Your task to perform on an android device: Search for "bose soundsport free" on target.com, select the first entry, and add it to the cart. Image 0: 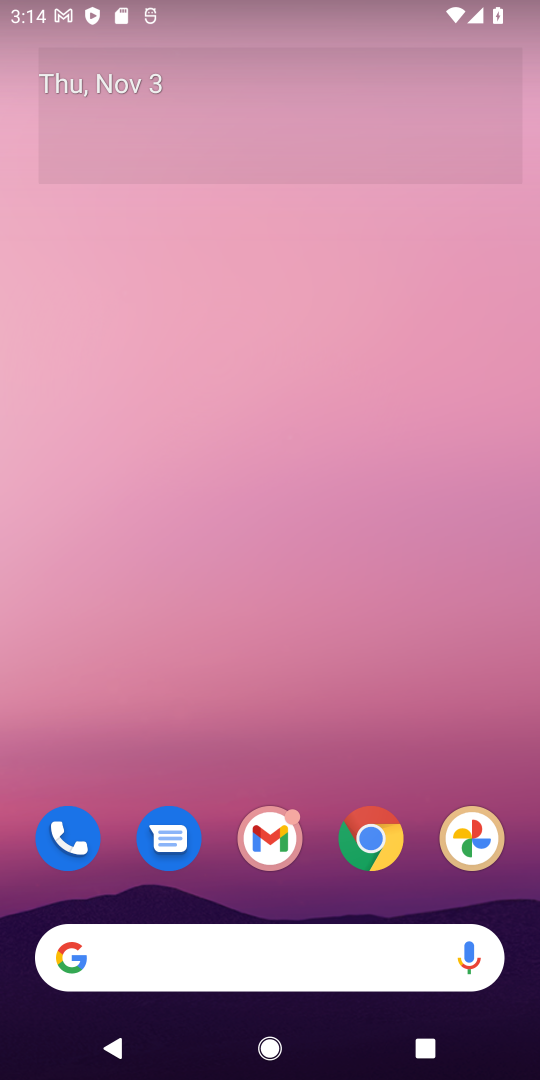
Step 0: drag from (194, 902) to (147, 246)
Your task to perform on an android device: Search for "bose soundsport free" on target.com, select the first entry, and add it to the cart. Image 1: 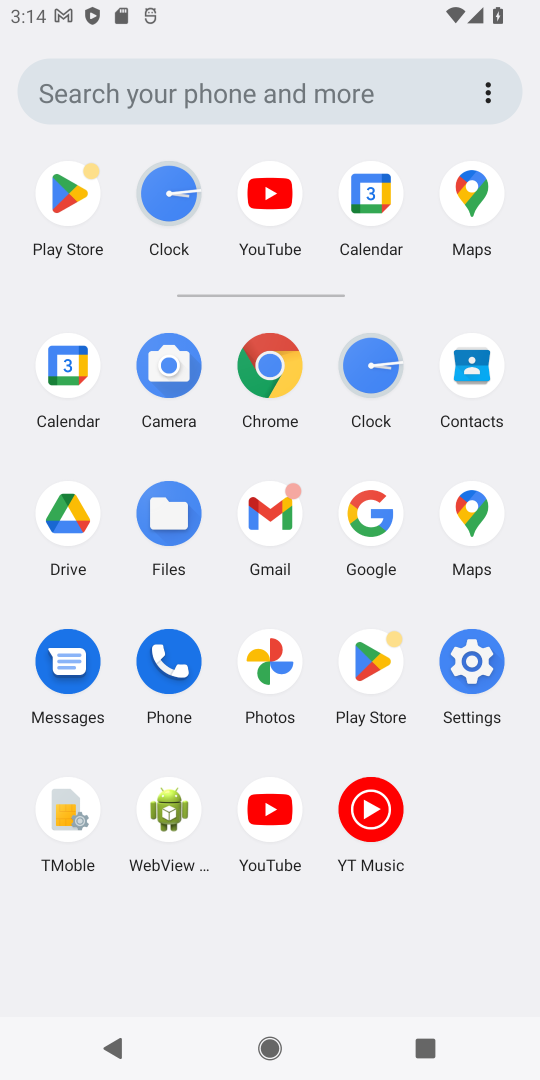
Step 1: click (270, 371)
Your task to perform on an android device: Search for "bose soundsport free" on target.com, select the first entry, and add it to the cart. Image 2: 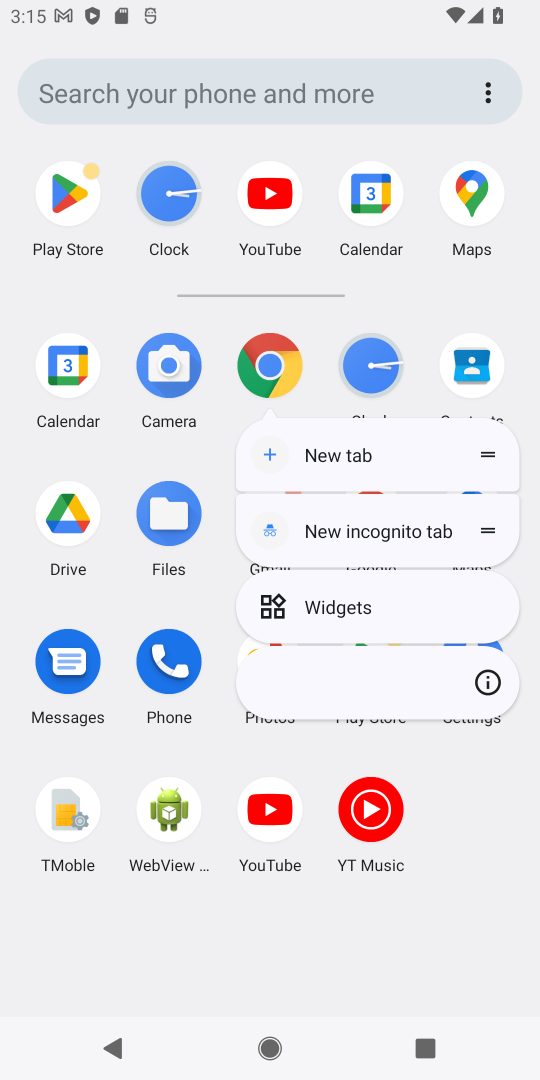
Step 2: click (264, 370)
Your task to perform on an android device: Search for "bose soundsport free" on target.com, select the first entry, and add it to the cart. Image 3: 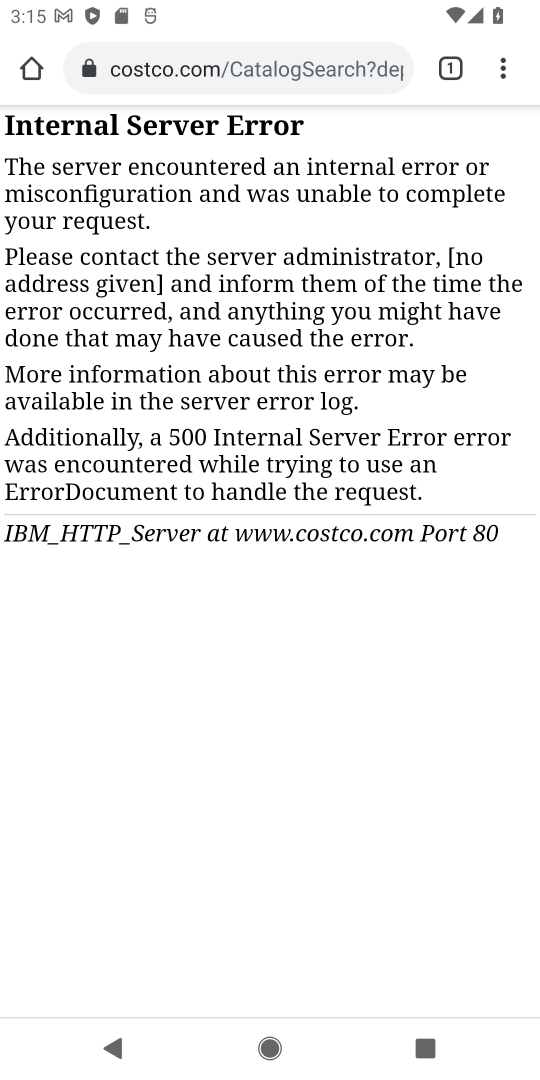
Step 3: click (337, 57)
Your task to perform on an android device: Search for "bose soundsport free" on target.com, select the first entry, and add it to the cart. Image 4: 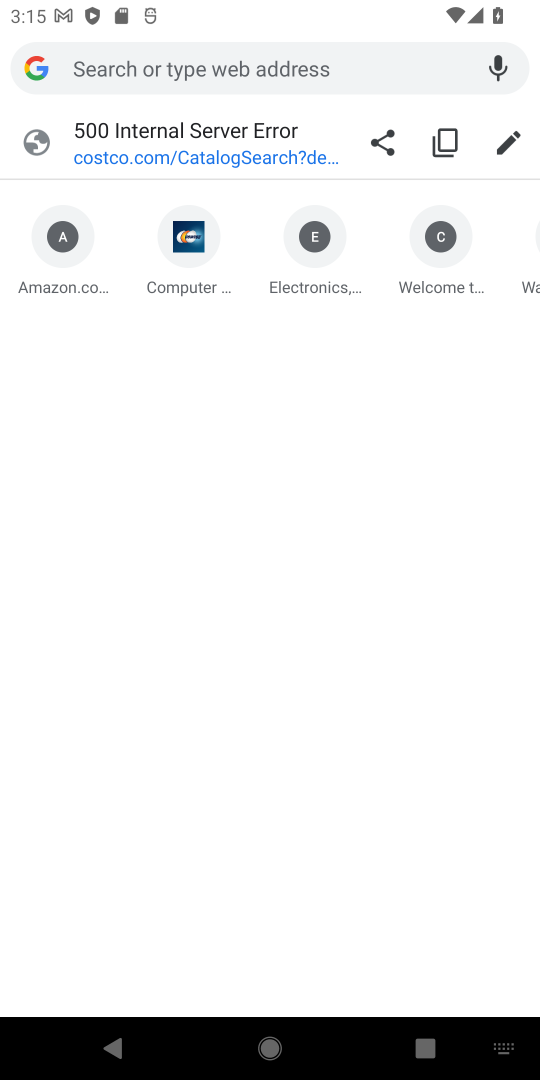
Step 4: type "target.com"
Your task to perform on an android device: Search for "bose soundsport free" on target.com, select the first entry, and add it to the cart. Image 5: 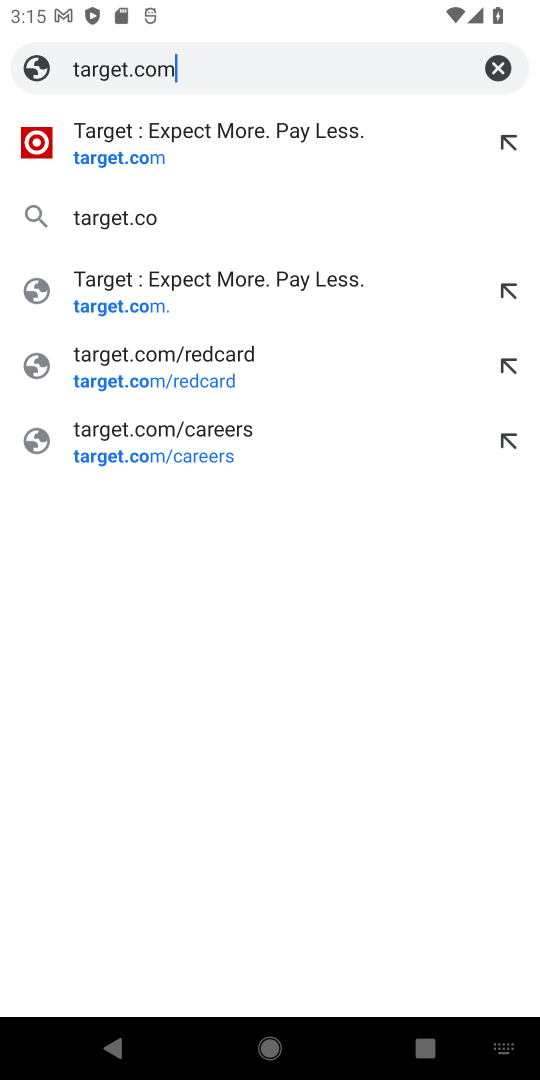
Step 5: press enter
Your task to perform on an android device: Search for "bose soundsport free" on target.com, select the first entry, and add it to the cart. Image 6: 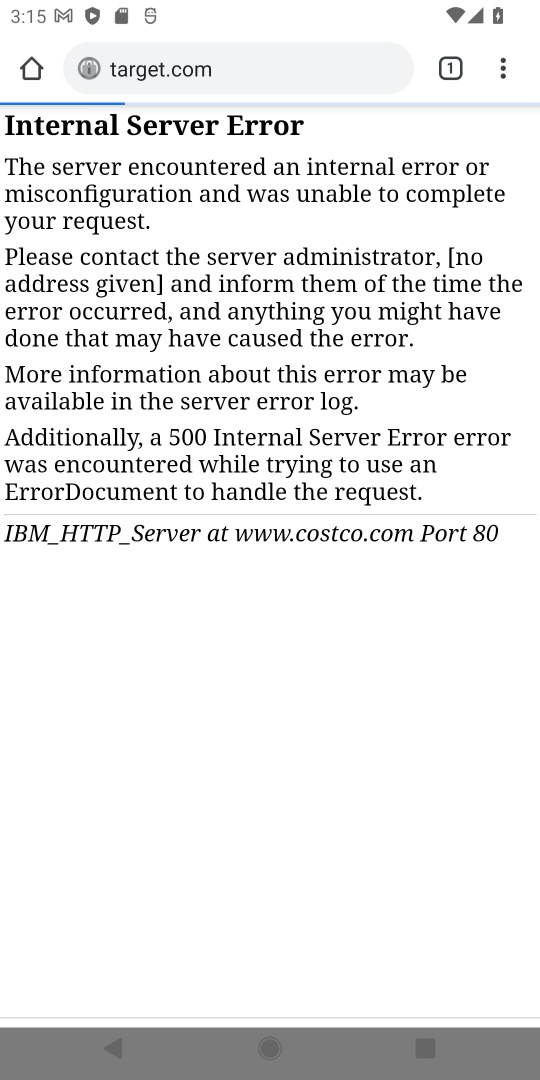
Step 6: press enter
Your task to perform on an android device: Search for "bose soundsport free" on target.com, select the first entry, and add it to the cart. Image 7: 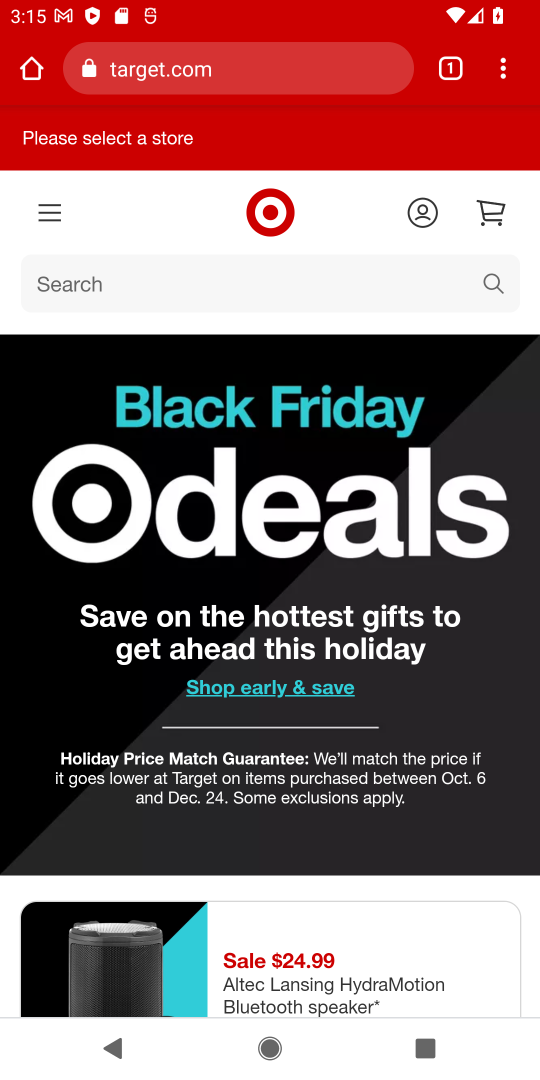
Step 7: press enter
Your task to perform on an android device: Search for "bose soundsport free" on target.com, select the first entry, and add it to the cart. Image 8: 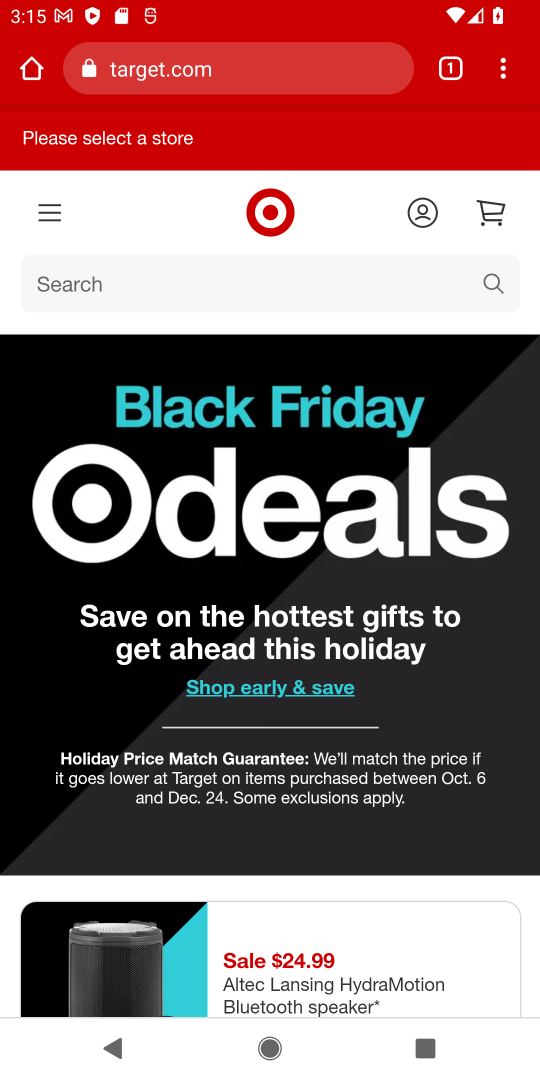
Step 8: click (200, 296)
Your task to perform on an android device: Search for "bose soundsport free" on target.com, select the first entry, and add it to the cart. Image 9: 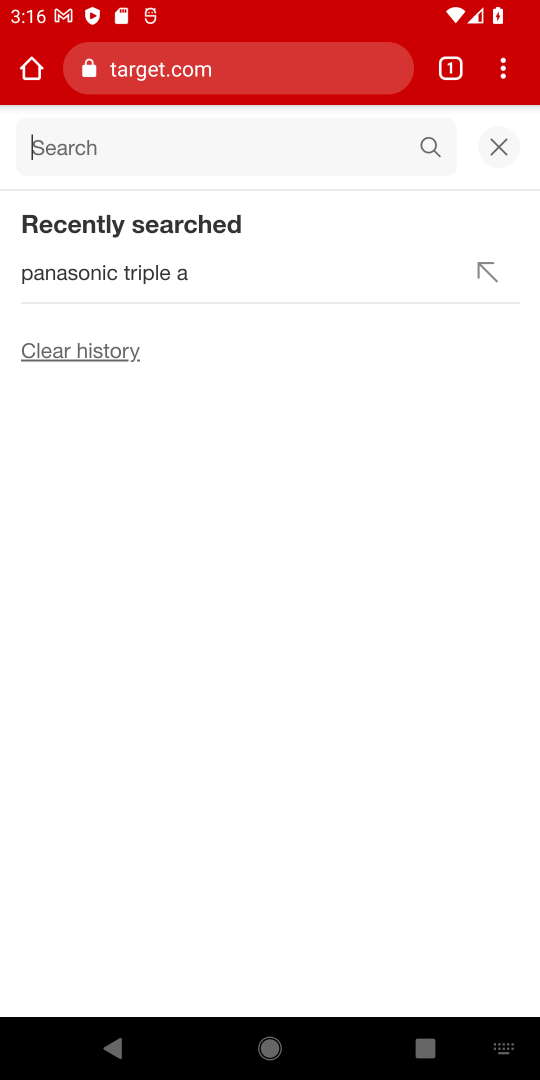
Step 9: type "bose soundsport free"
Your task to perform on an android device: Search for "bose soundsport free" on target.com, select the first entry, and add it to the cart. Image 10: 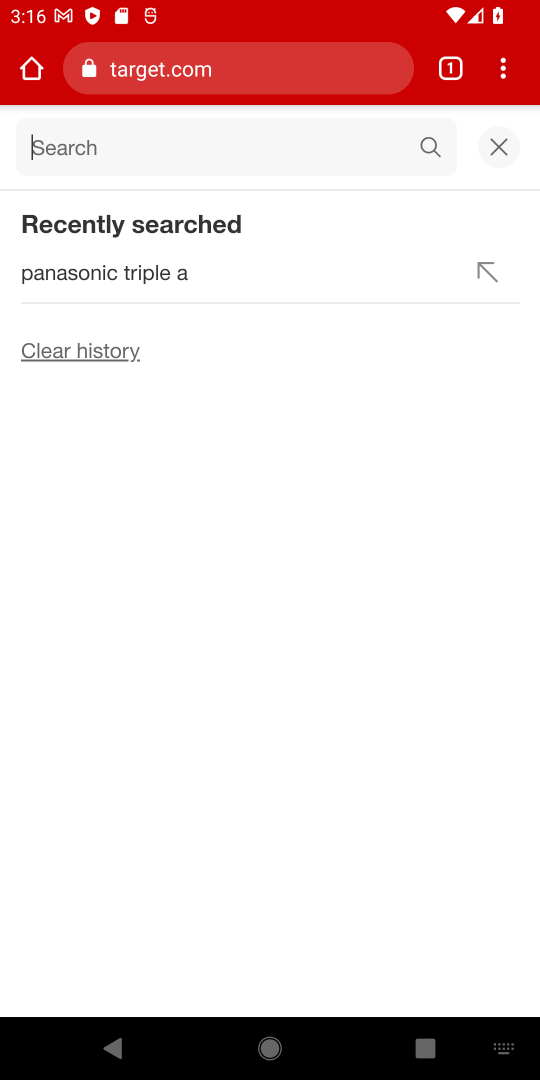
Step 10: press enter
Your task to perform on an android device: Search for "bose soundsport free" on target.com, select the first entry, and add it to the cart. Image 11: 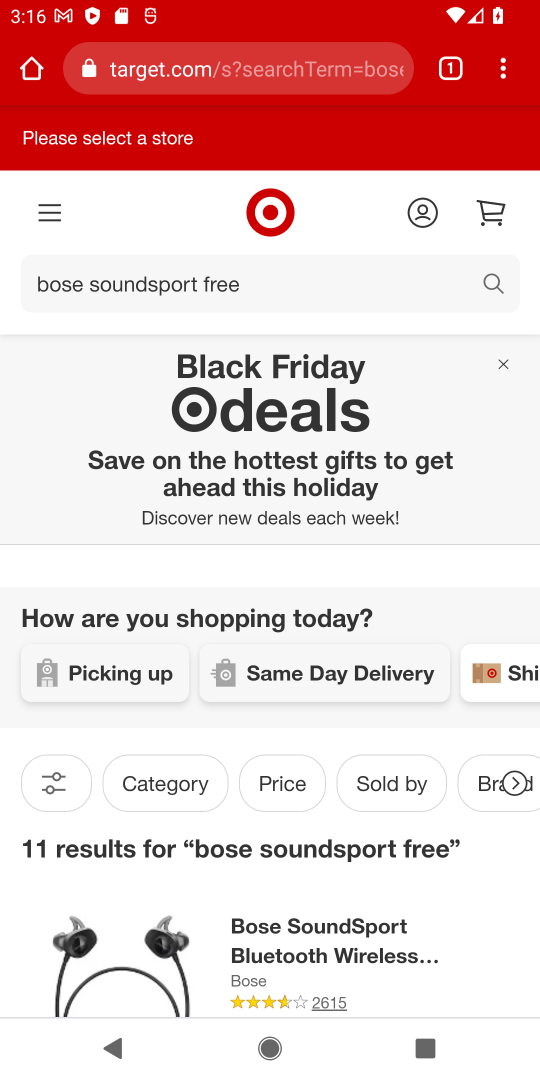
Step 11: drag from (342, 840) to (366, 447)
Your task to perform on an android device: Search for "bose soundsport free" on target.com, select the first entry, and add it to the cart. Image 12: 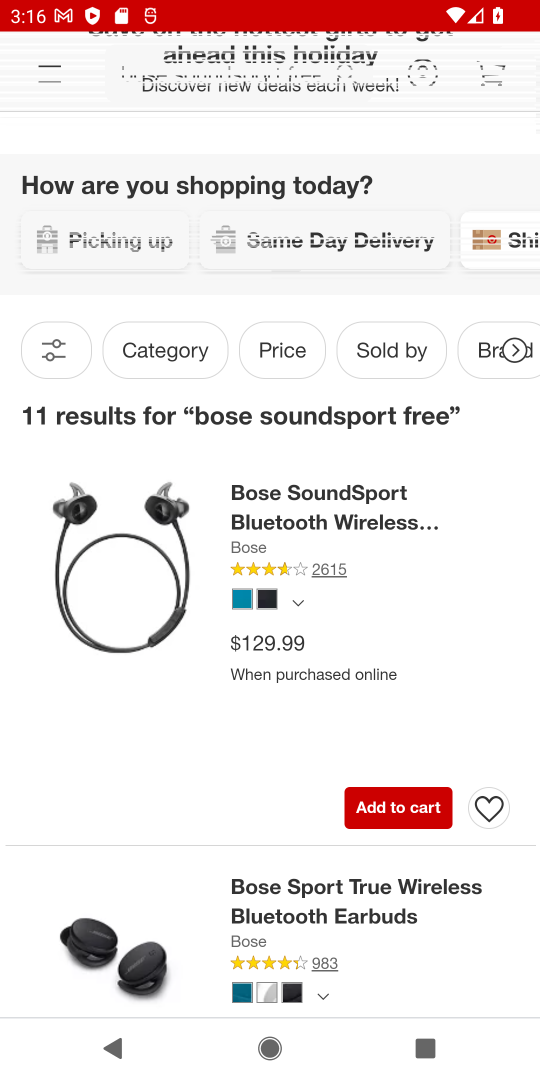
Step 12: click (329, 519)
Your task to perform on an android device: Search for "bose soundsport free" on target.com, select the first entry, and add it to the cart. Image 13: 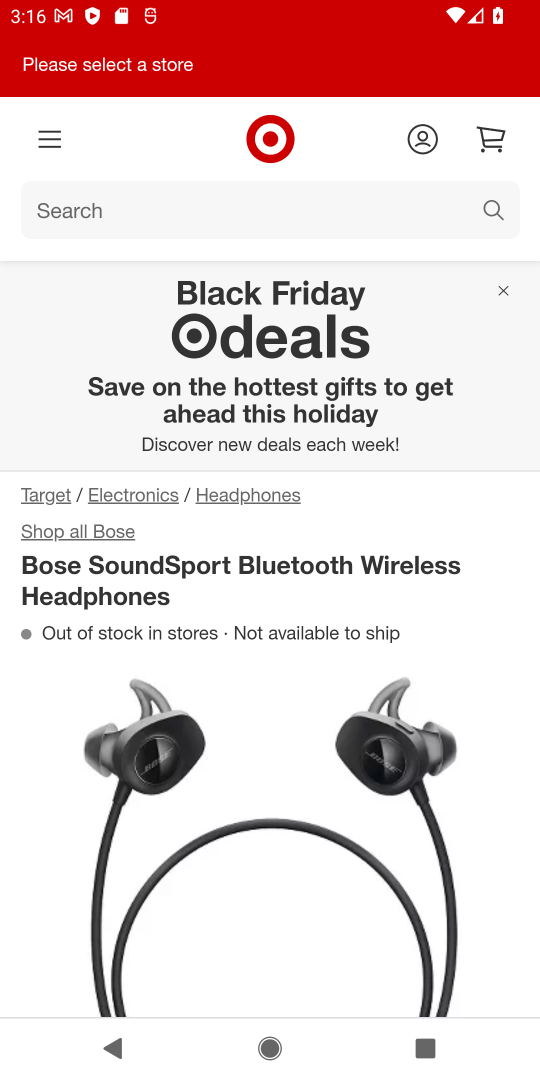
Step 13: task complete